Your task to perform on an android device: check out phone information Image 0: 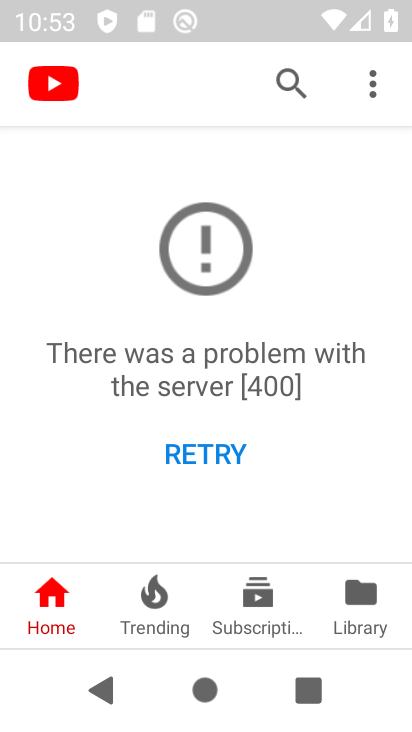
Step 0: press home button
Your task to perform on an android device: check out phone information Image 1: 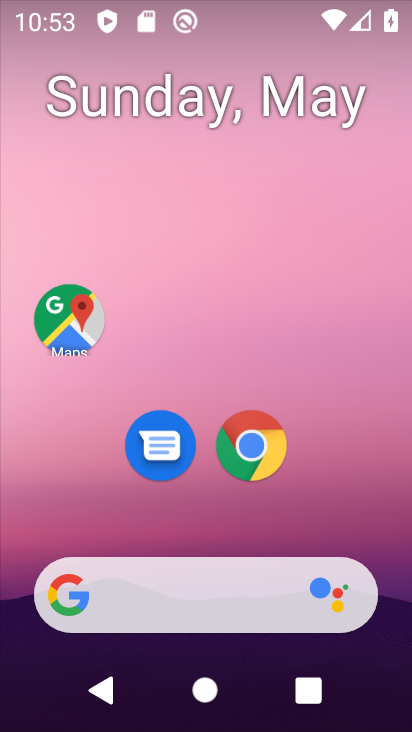
Step 1: drag from (312, 493) to (292, 213)
Your task to perform on an android device: check out phone information Image 2: 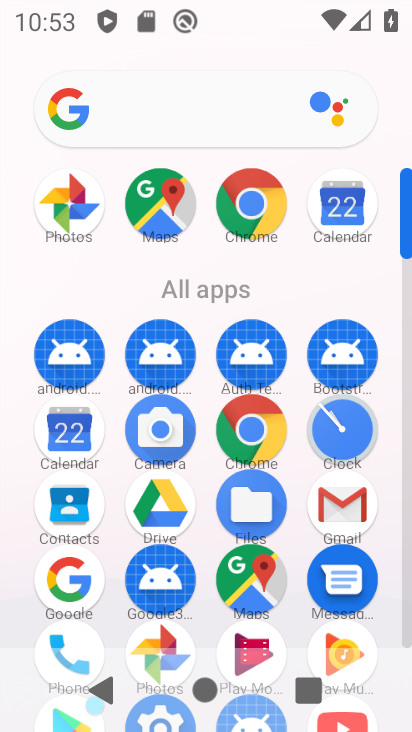
Step 2: drag from (293, 326) to (277, 51)
Your task to perform on an android device: check out phone information Image 3: 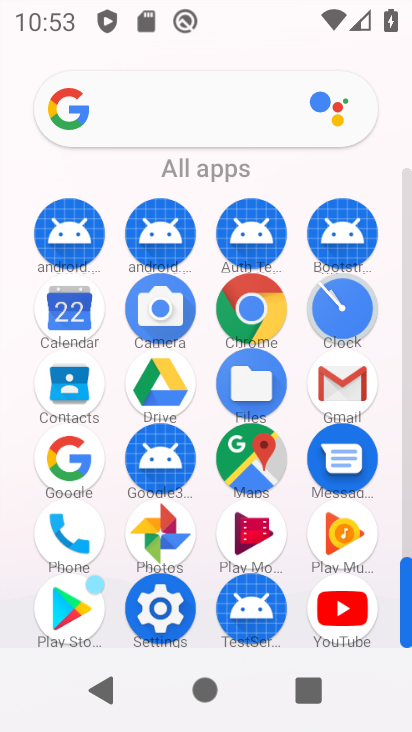
Step 3: click (64, 540)
Your task to perform on an android device: check out phone information Image 4: 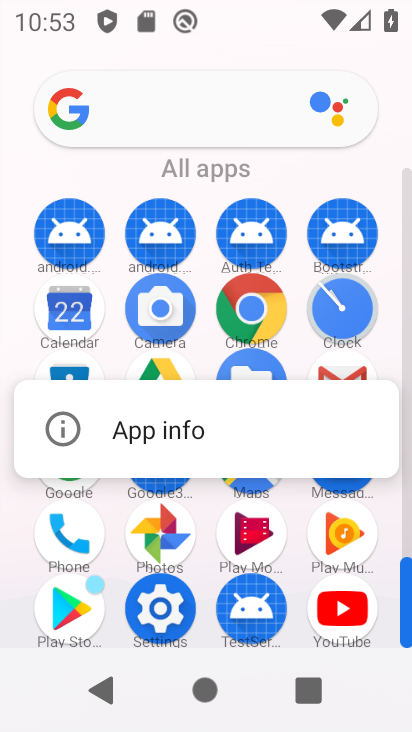
Step 4: click (129, 430)
Your task to perform on an android device: check out phone information Image 5: 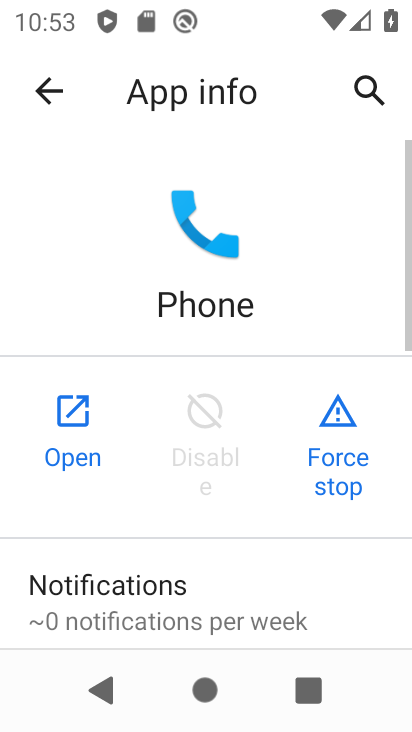
Step 5: task complete